Your task to perform on an android device: Open calendar and show me the third week of next month Image 0: 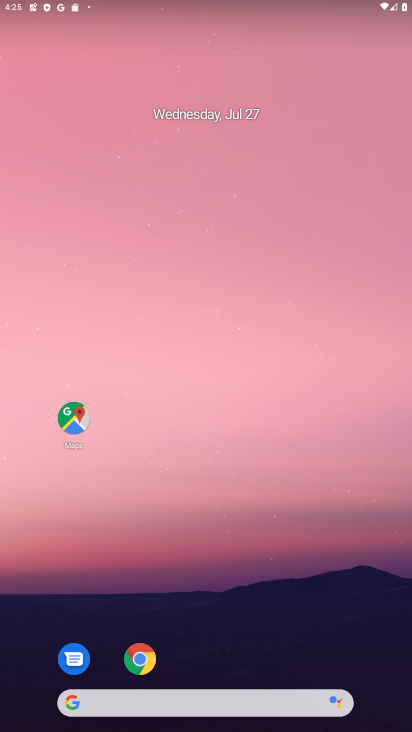
Step 0: drag from (293, 653) to (236, 207)
Your task to perform on an android device: Open calendar and show me the third week of next month Image 1: 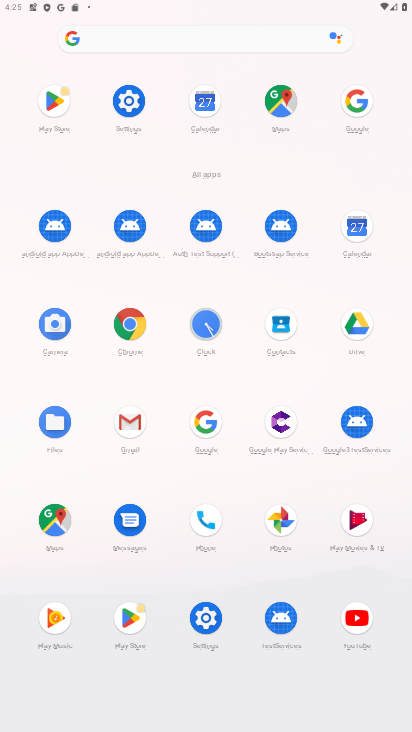
Step 1: click (368, 233)
Your task to perform on an android device: Open calendar and show me the third week of next month Image 2: 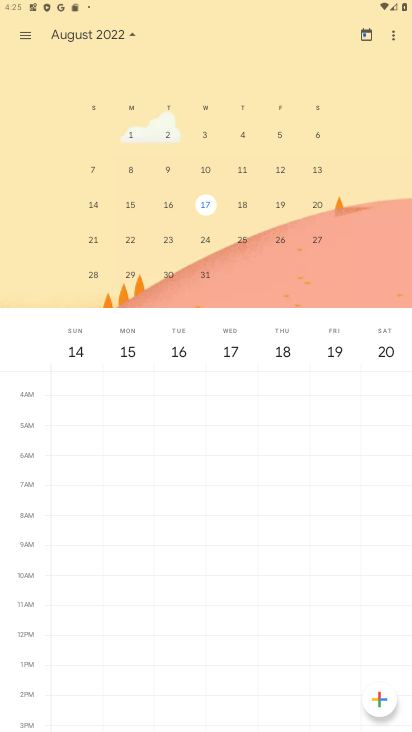
Step 2: task complete